Your task to perform on an android device: Open Chrome and go to the settings page Image 0: 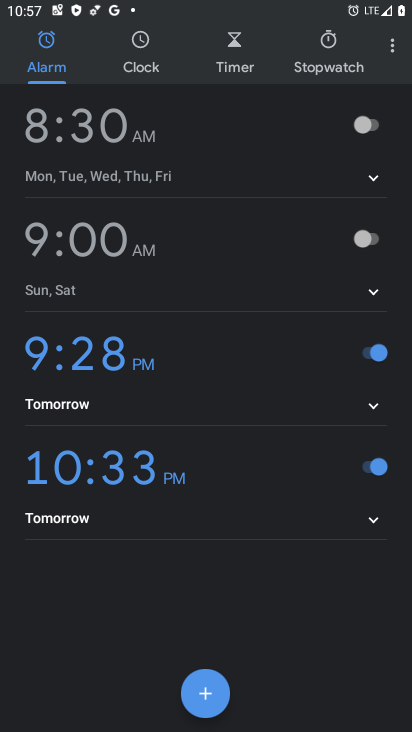
Step 0: press home button
Your task to perform on an android device: Open Chrome and go to the settings page Image 1: 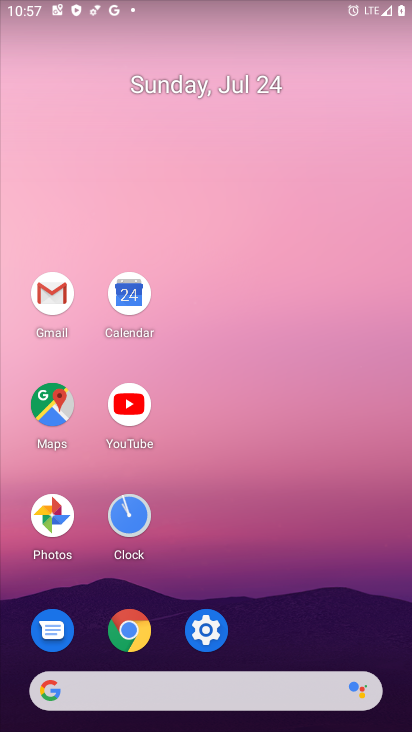
Step 1: click (129, 633)
Your task to perform on an android device: Open Chrome and go to the settings page Image 2: 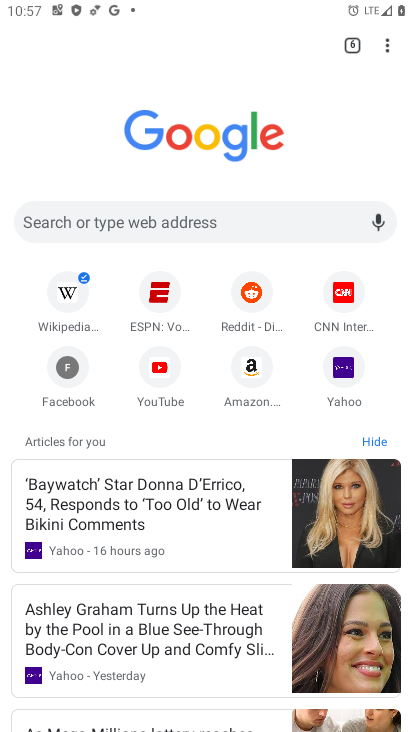
Step 2: click (392, 43)
Your task to perform on an android device: Open Chrome and go to the settings page Image 3: 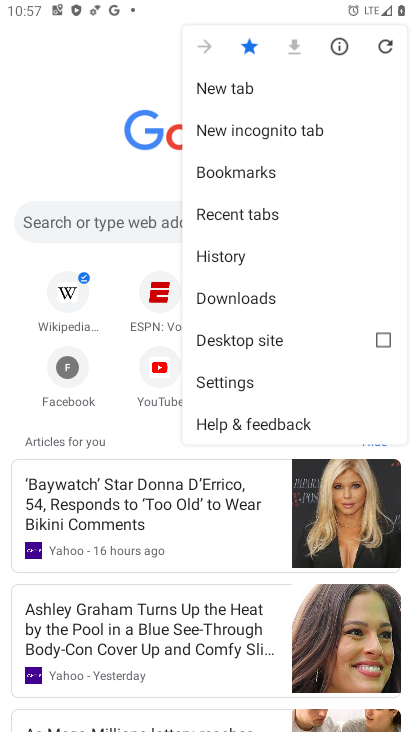
Step 3: click (223, 377)
Your task to perform on an android device: Open Chrome and go to the settings page Image 4: 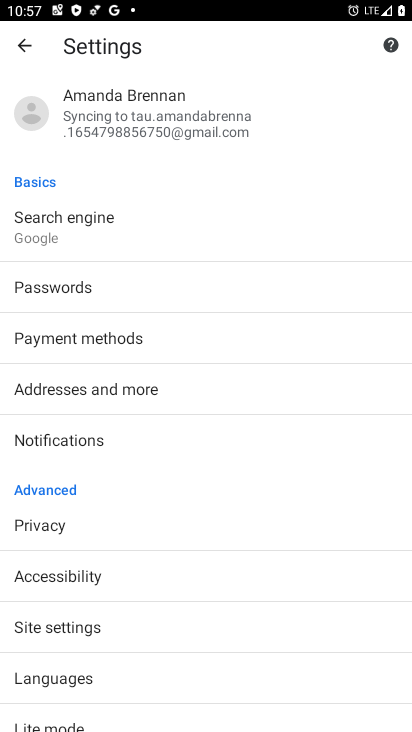
Step 4: task complete